Your task to perform on an android device: change timer sound Image 0: 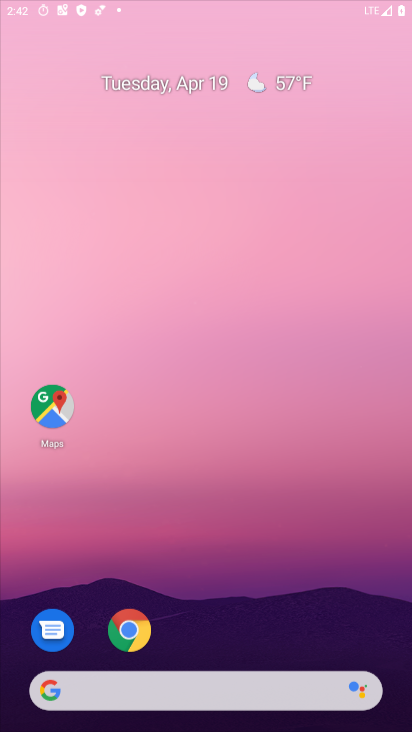
Step 0: click (134, 625)
Your task to perform on an android device: change timer sound Image 1: 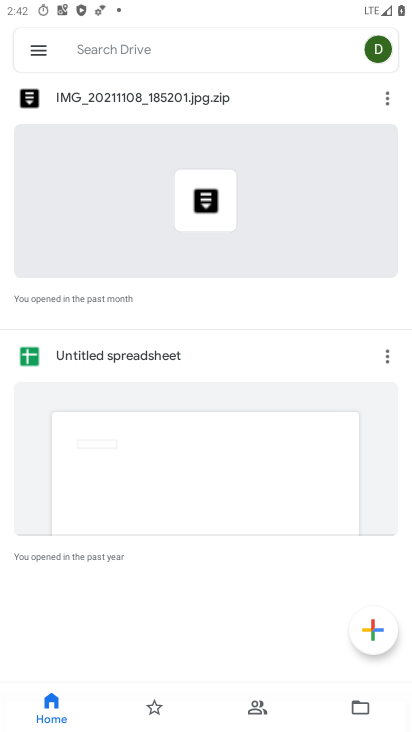
Step 1: press home button
Your task to perform on an android device: change timer sound Image 2: 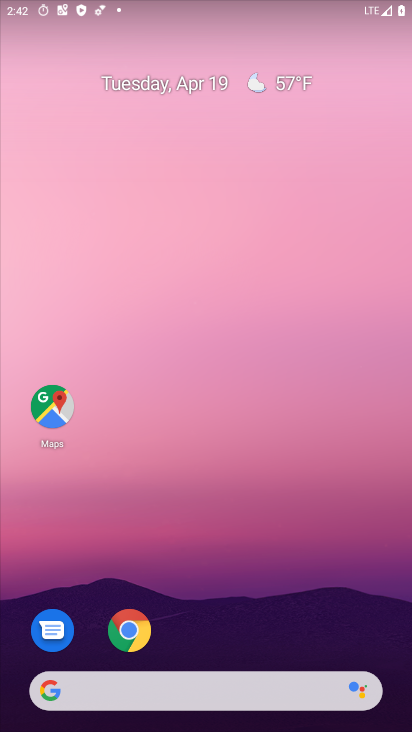
Step 2: drag from (230, 608) to (204, 9)
Your task to perform on an android device: change timer sound Image 3: 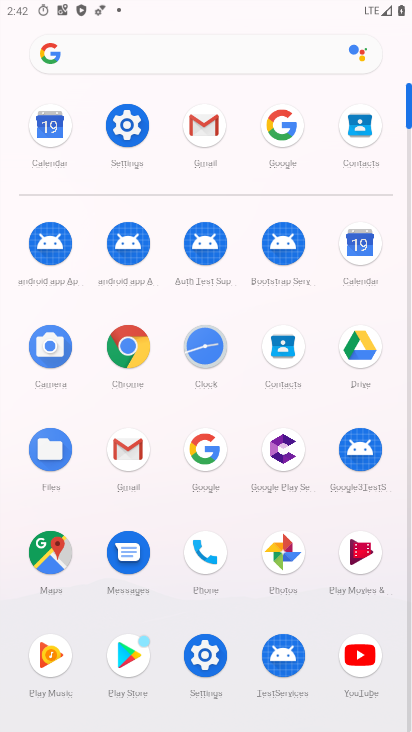
Step 3: click (208, 355)
Your task to perform on an android device: change timer sound Image 4: 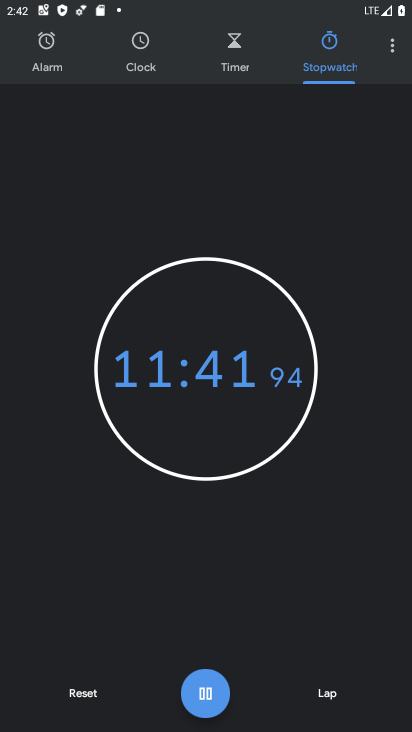
Step 4: click (396, 45)
Your task to perform on an android device: change timer sound Image 5: 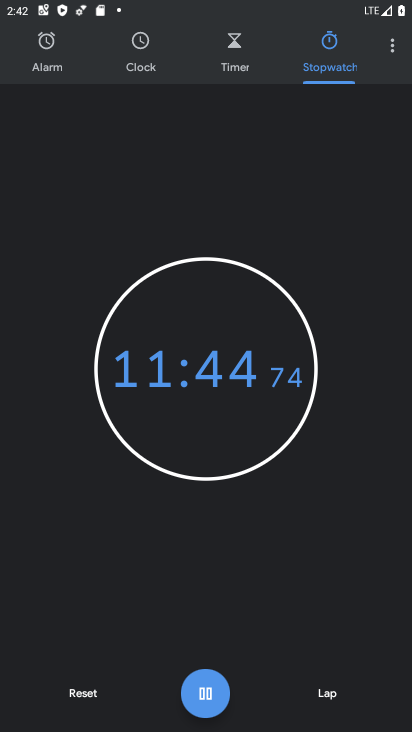
Step 5: click (394, 41)
Your task to perform on an android device: change timer sound Image 6: 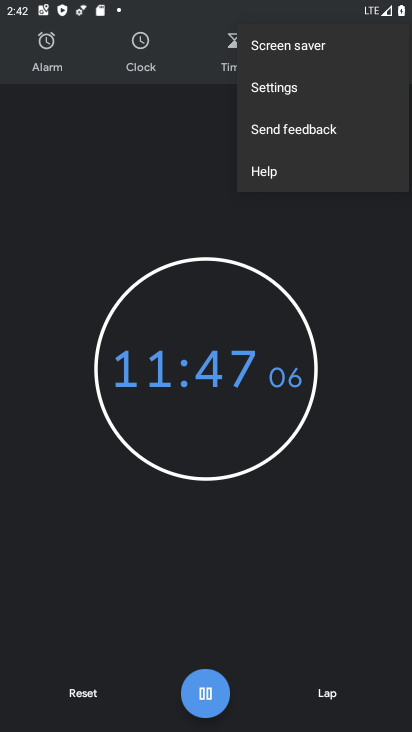
Step 6: click (289, 91)
Your task to perform on an android device: change timer sound Image 7: 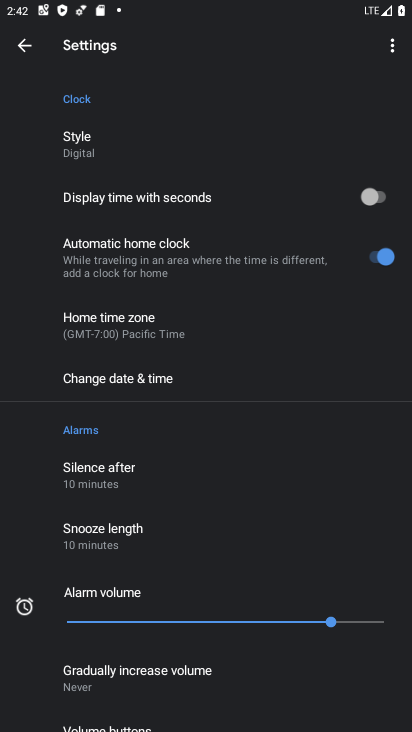
Step 7: drag from (281, 689) to (242, 262)
Your task to perform on an android device: change timer sound Image 8: 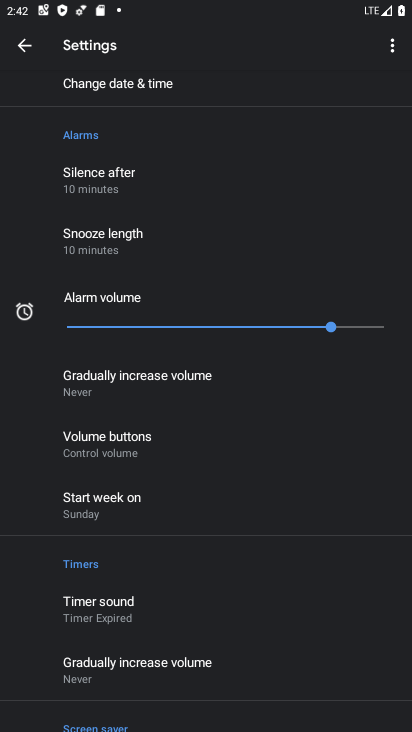
Step 8: click (164, 608)
Your task to perform on an android device: change timer sound Image 9: 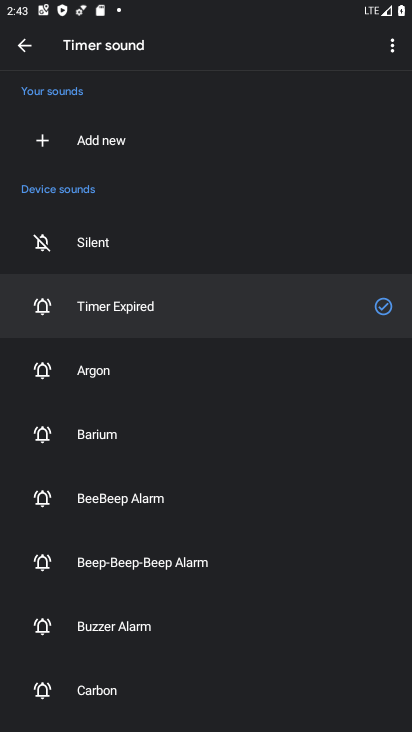
Step 9: click (177, 374)
Your task to perform on an android device: change timer sound Image 10: 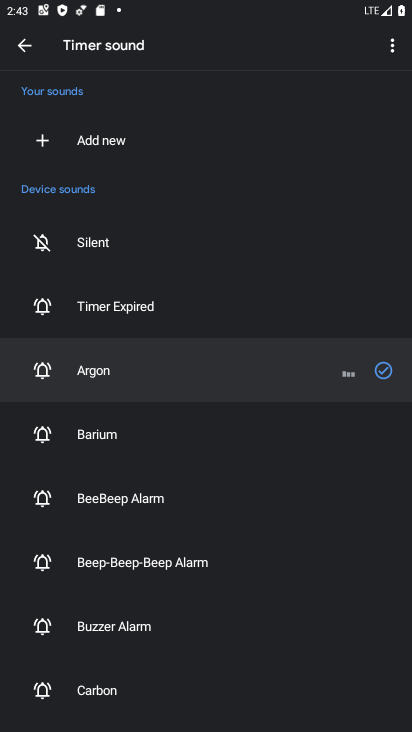
Step 10: task complete